Your task to perform on an android device: Open Chrome and go to settings Image 0: 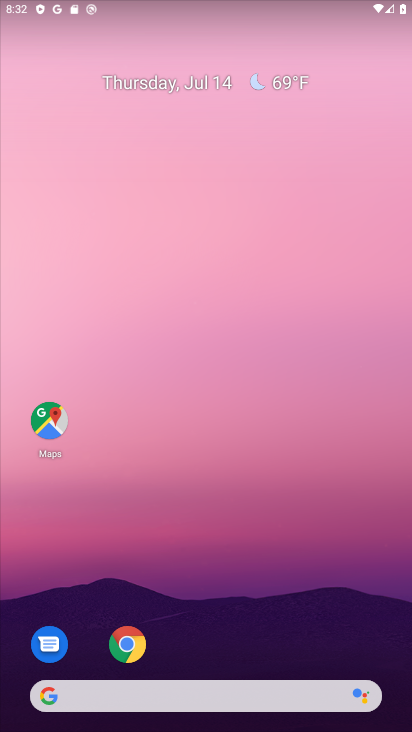
Step 0: click (121, 633)
Your task to perform on an android device: Open Chrome and go to settings Image 1: 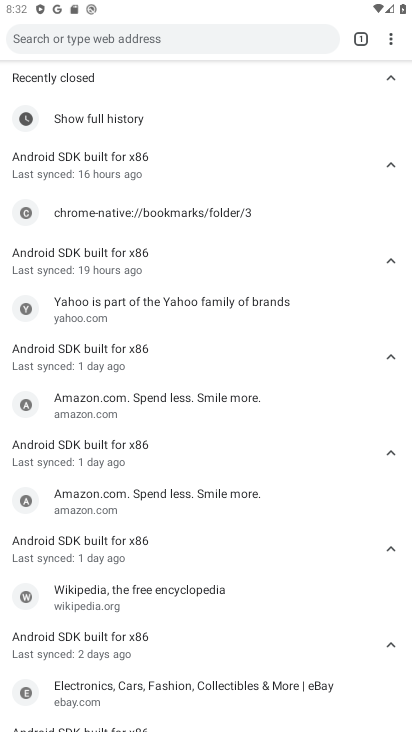
Step 1: click (396, 44)
Your task to perform on an android device: Open Chrome and go to settings Image 2: 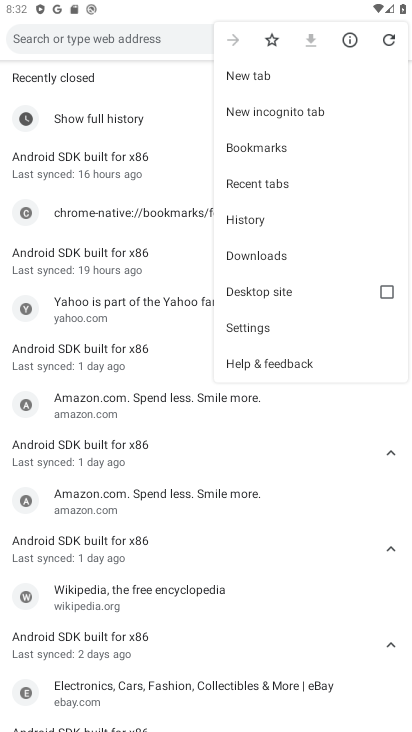
Step 2: click (281, 333)
Your task to perform on an android device: Open Chrome and go to settings Image 3: 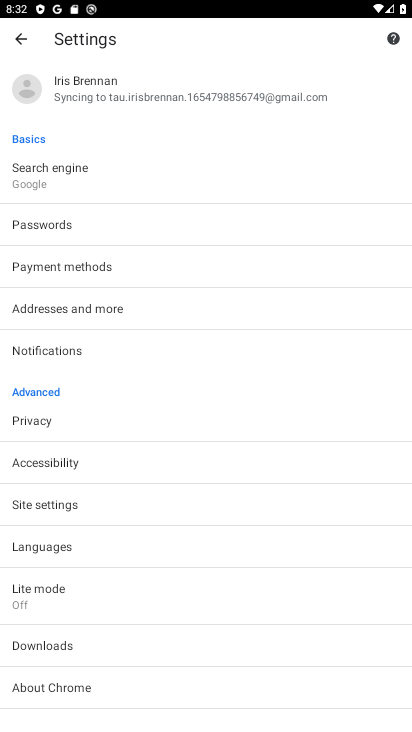
Step 3: task complete